Your task to perform on an android device: Search for logitech g502 on ebay, select the first entry, add it to the cart, then select checkout. Image 0: 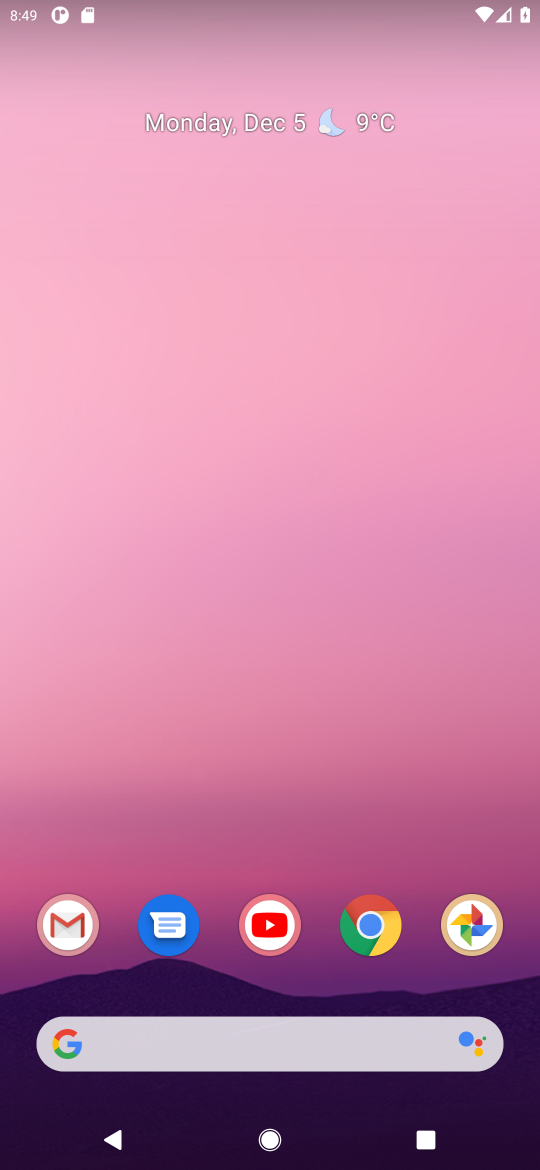
Step 0: click (368, 931)
Your task to perform on an android device: Search for logitech g502 on ebay, select the first entry, add it to the cart, then select checkout. Image 1: 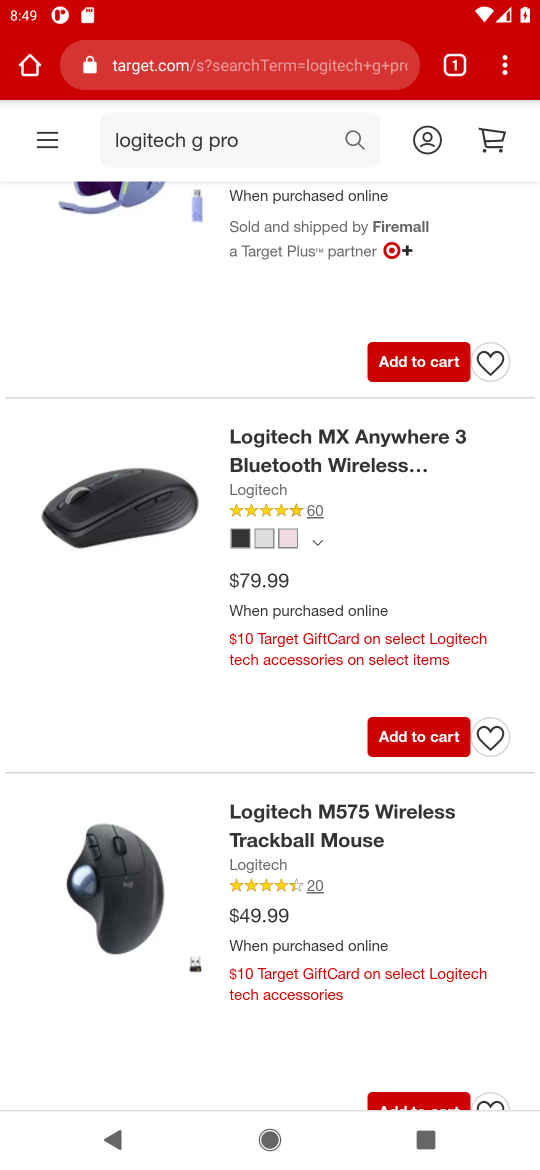
Step 1: click (243, 64)
Your task to perform on an android device: Search for logitech g502 on ebay, select the first entry, add it to the cart, then select checkout. Image 2: 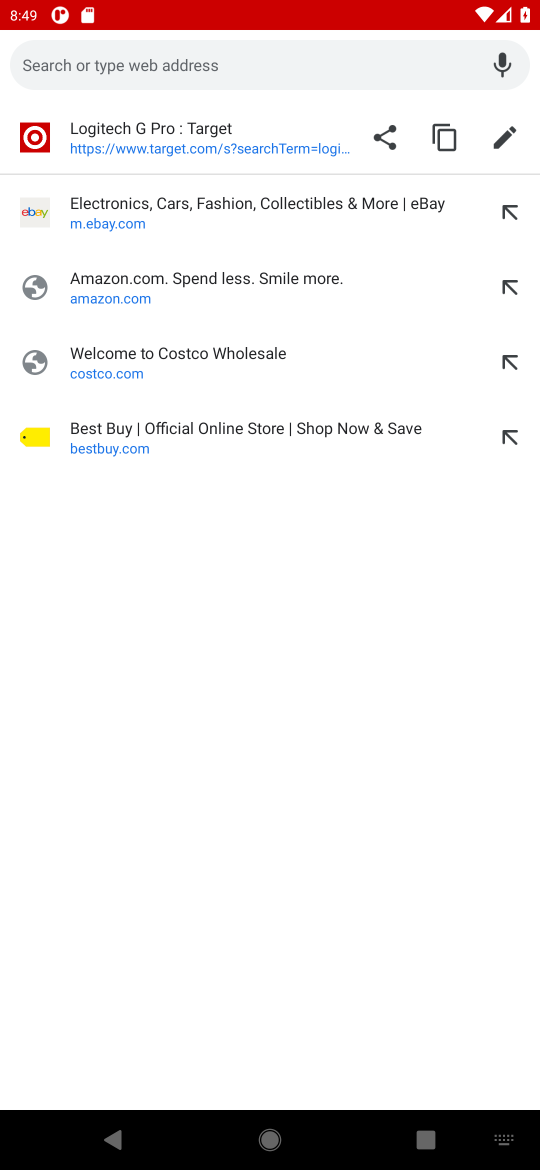
Step 2: click (119, 223)
Your task to perform on an android device: Search for logitech g502 on ebay, select the first entry, add it to the cart, then select checkout. Image 3: 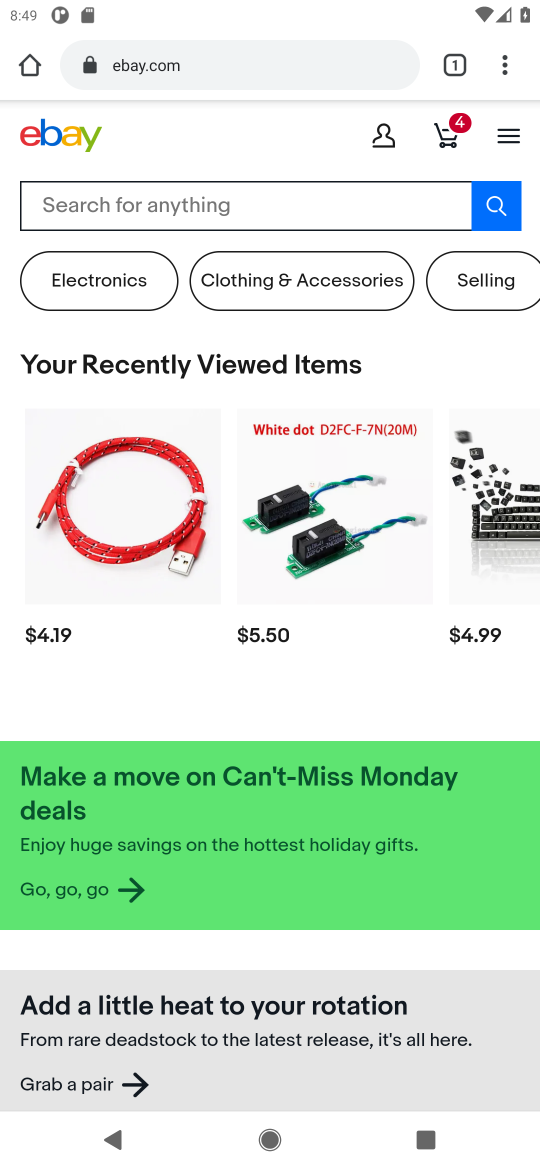
Step 3: click (69, 209)
Your task to perform on an android device: Search for logitech g502 on ebay, select the first entry, add it to the cart, then select checkout. Image 4: 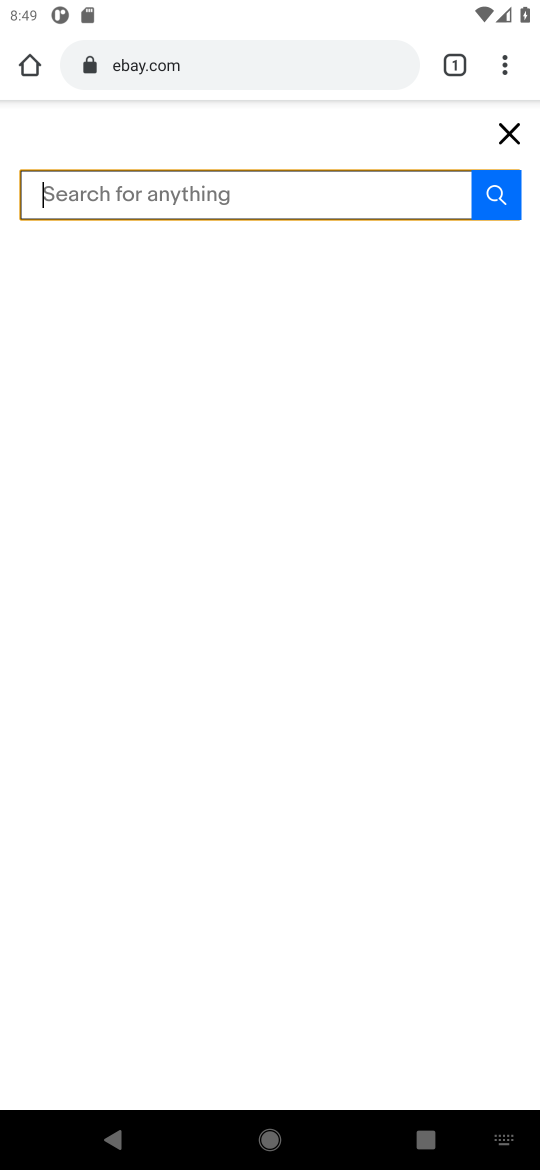
Step 4: type " logitech g502 "
Your task to perform on an android device: Search for logitech g502 on ebay, select the first entry, add it to the cart, then select checkout. Image 5: 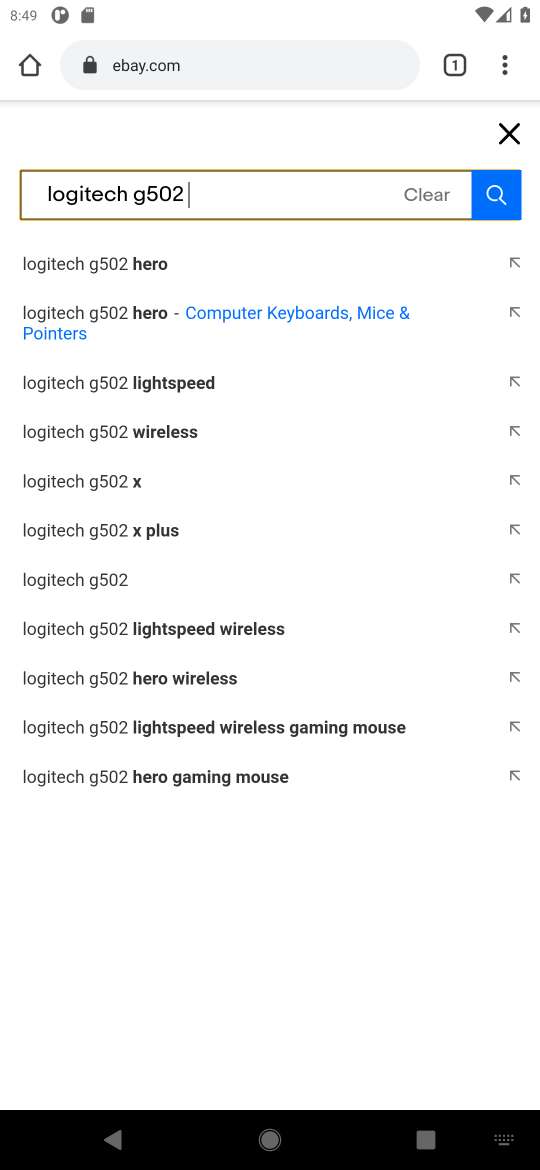
Step 5: click (103, 583)
Your task to perform on an android device: Search for logitech g502 on ebay, select the first entry, add it to the cart, then select checkout. Image 6: 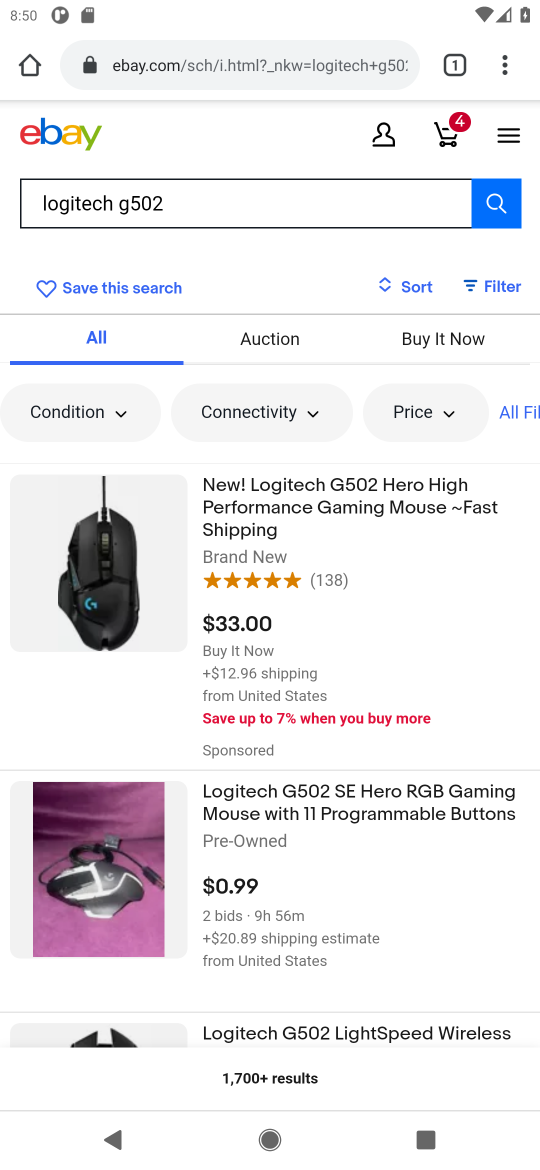
Step 6: click (231, 512)
Your task to perform on an android device: Search for logitech g502 on ebay, select the first entry, add it to the cart, then select checkout. Image 7: 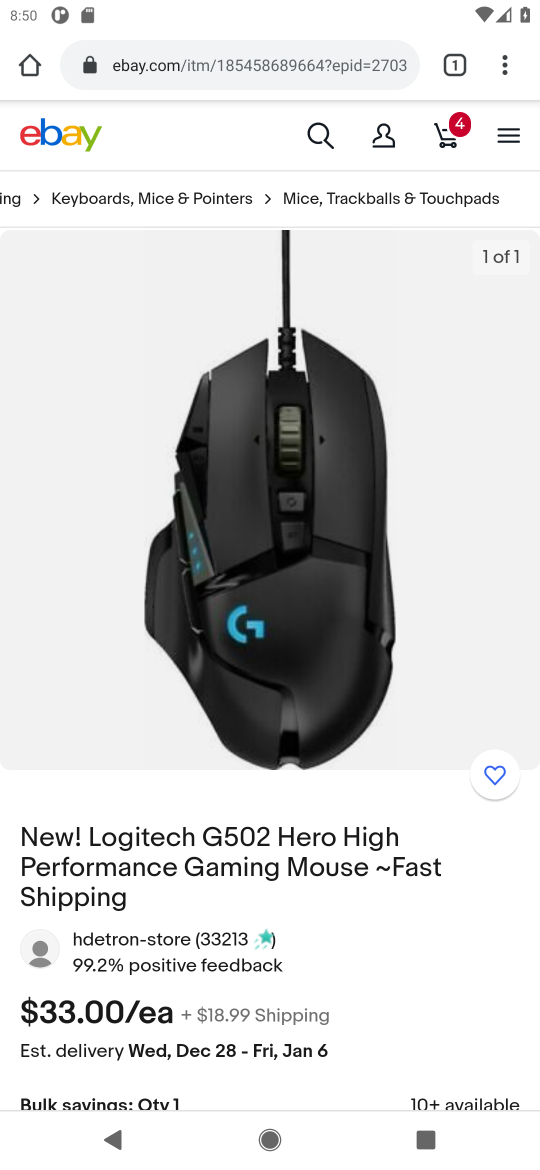
Step 7: drag from (218, 864) to (237, 340)
Your task to perform on an android device: Search for logitech g502 on ebay, select the first entry, add it to the cart, then select checkout. Image 8: 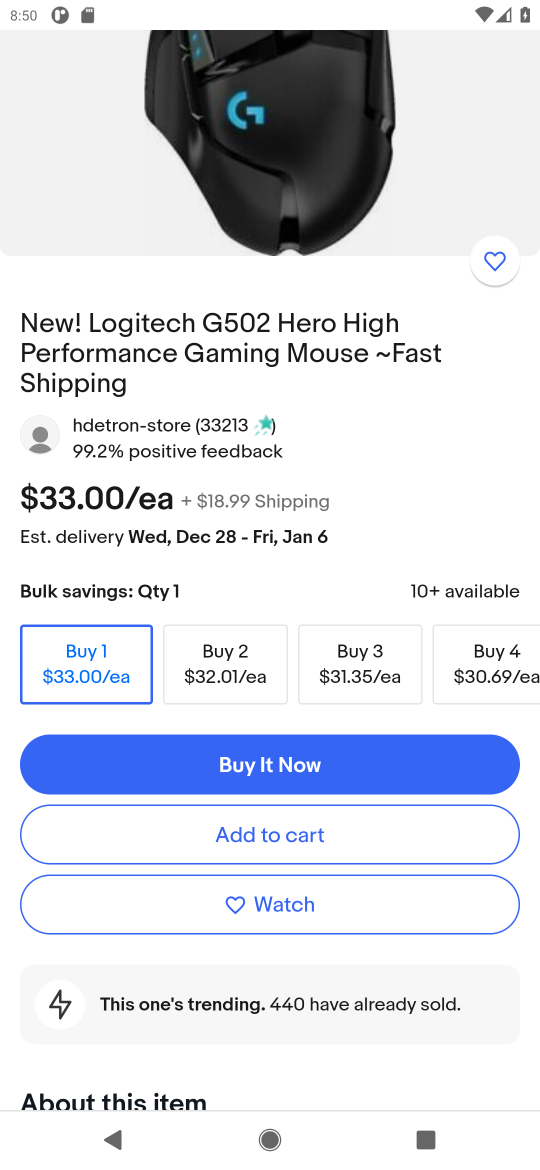
Step 8: click (250, 832)
Your task to perform on an android device: Search for logitech g502 on ebay, select the first entry, add it to the cart, then select checkout. Image 9: 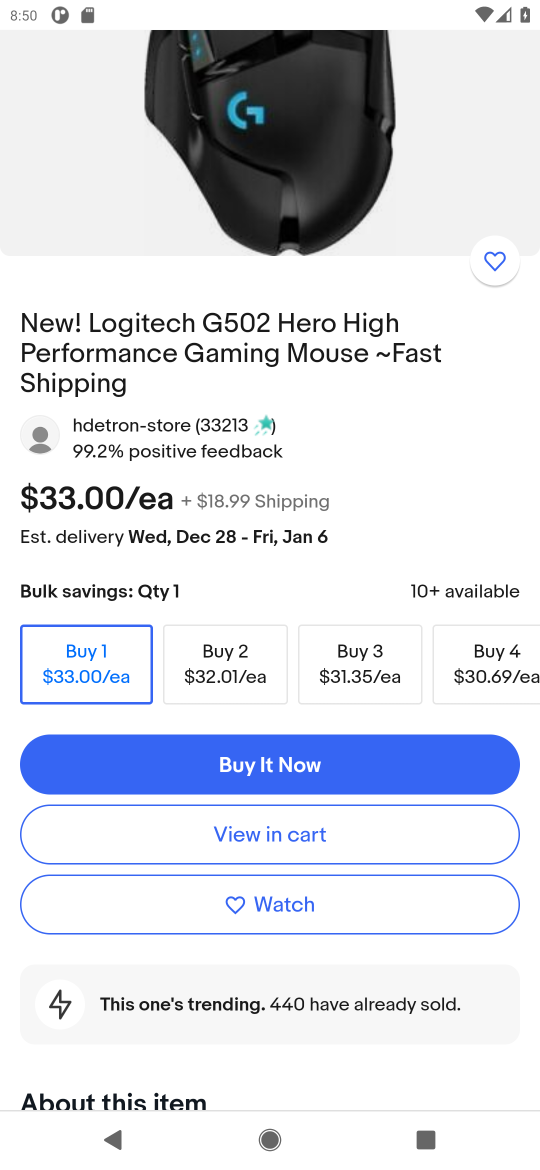
Step 9: click (250, 832)
Your task to perform on an android device: Search for logitech g502 on ebay, select the first entry, add it to the cart, then select checkout. Image 10: 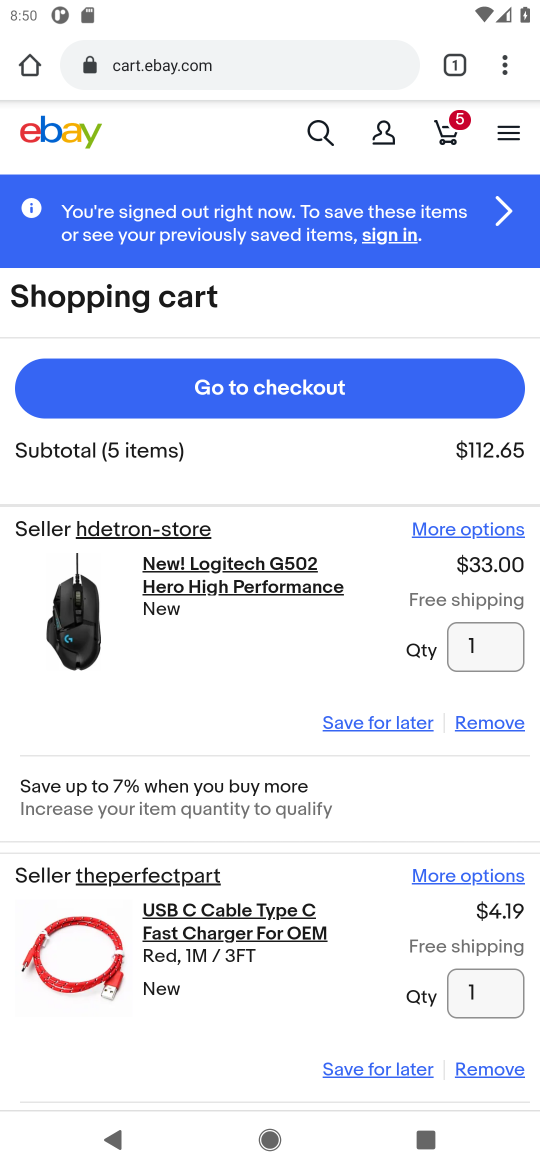
Step 10: click (232, 386)
Your task to perform on an android device: Search for logitech g502 on ebay, select the first entry, add it to the cart, then select checkout. Image 11: 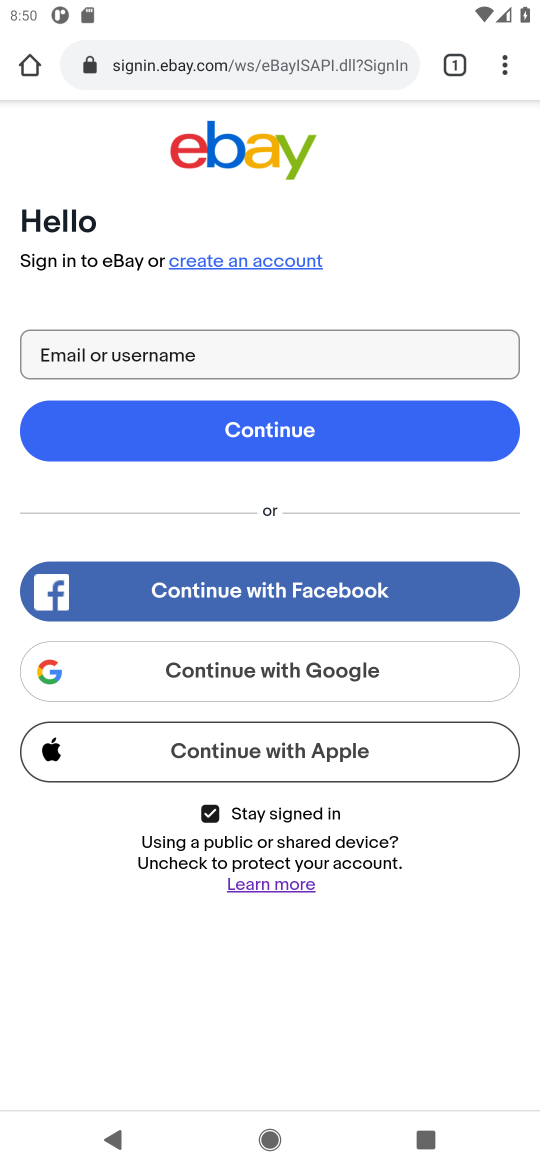
Step 11: task complete